Your task to perform on an android device: Open calendar and show me the fourth week of next month Image 0: 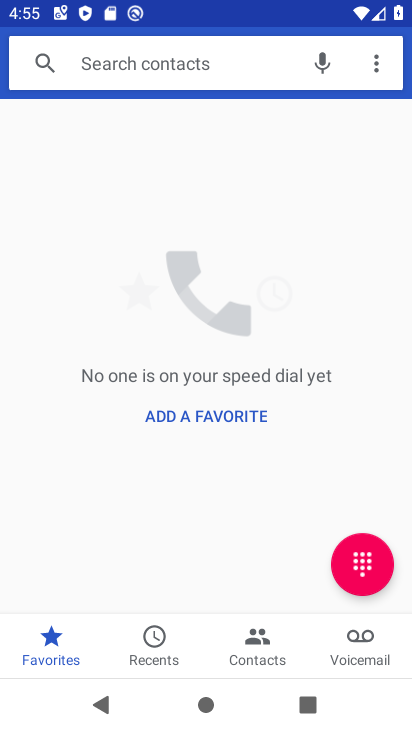
Step 0: press home button
Your task to perform on an android device: Open calendar and show me the fourth week of next month Image 1: 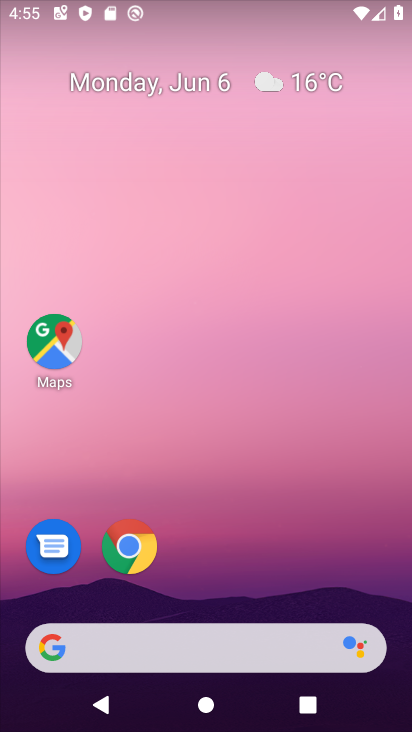
Step 1: drag from (142, 603) to (161, 221)
Your task to perform on an android device: Open calendar and show me the fourth week of next month Image 2: 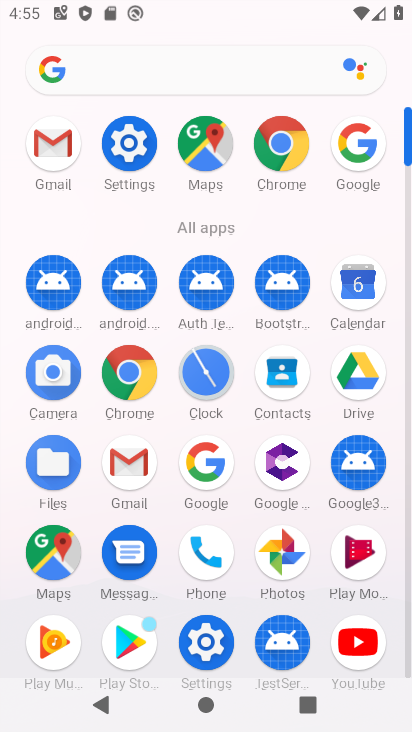
Step 2: click (354, 293)
Your task to perform on an android device: Open calendar and show me the fourth week of next month Image 3: 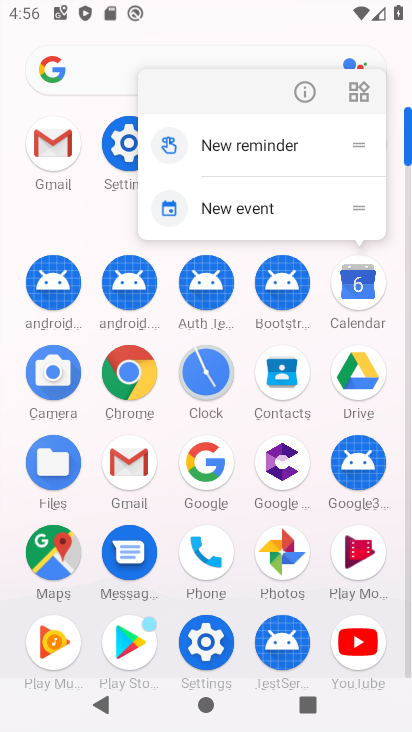
Step 3: click (349, 296)
Your task to perform on an android device: Open calendar and show me the fourth week of next month Image 4: 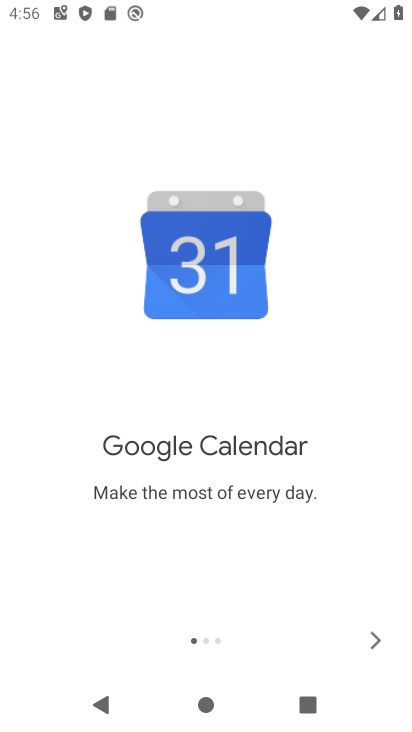
Step 4: click (370, 651)
Your task to perform on an android device: Open calendar and show me the fourth week of next month Image 5: 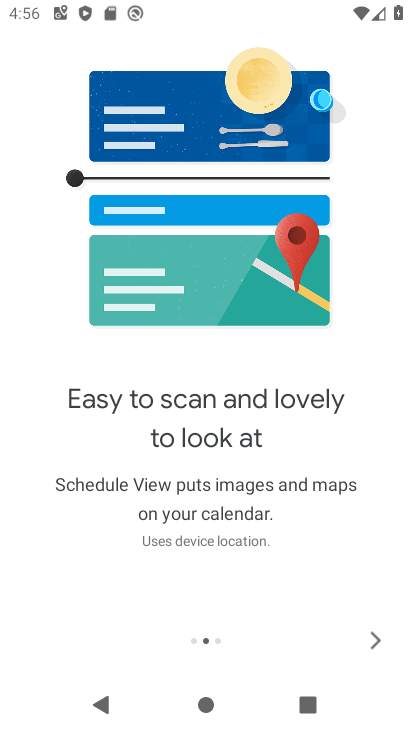
Step 5: click (370, 651)
Your task to perform on an android device: Open calendar and show me the fourth week of next month Image 6: 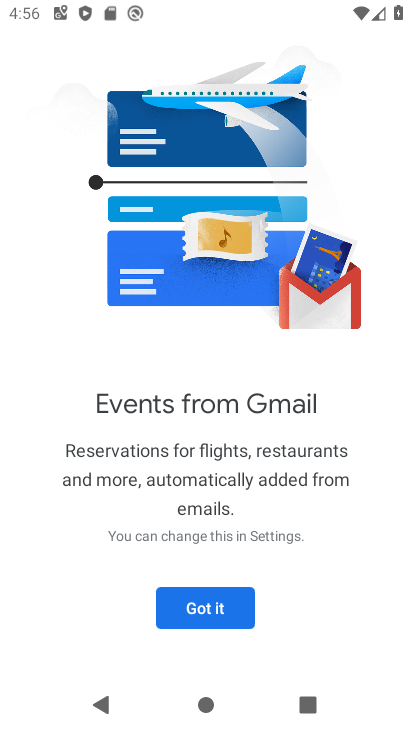
Step 6: click (205, 597)
Your task to perform on an android device: Open calendar and show me the fourth week of next month Image 7: 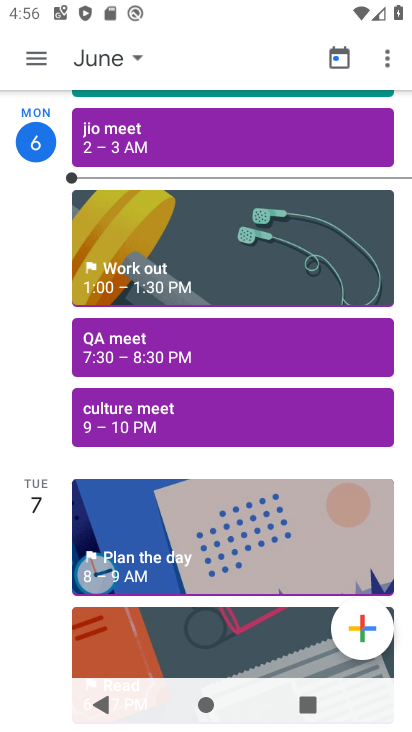
Step 7: click (108, 57)
Your task to perform on an android device: Open calendar and show me the fourth week of next month Image 8: 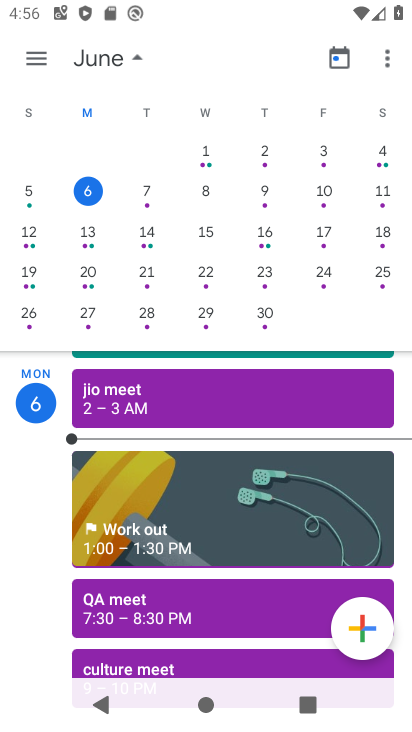
Step 8: drag from (342, 218) to (1, 293)
Your task to perform on an android device: Open calendar and show me the fourth week of next month Image 9: 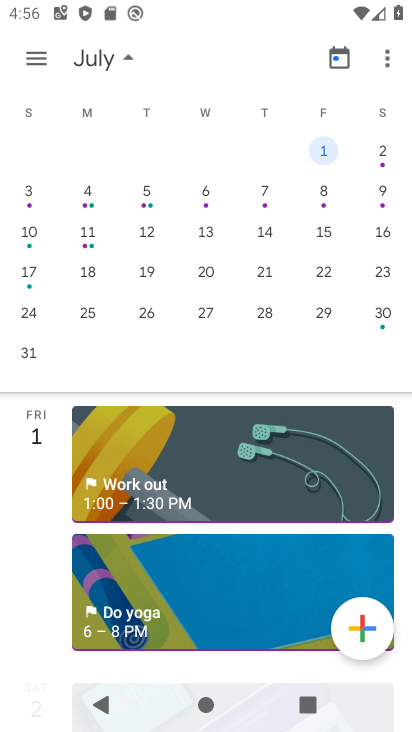
Step 9: click (24, 274)
Your task to perform on an android device: Open calendar and show me the fourth week of next month Image 10: 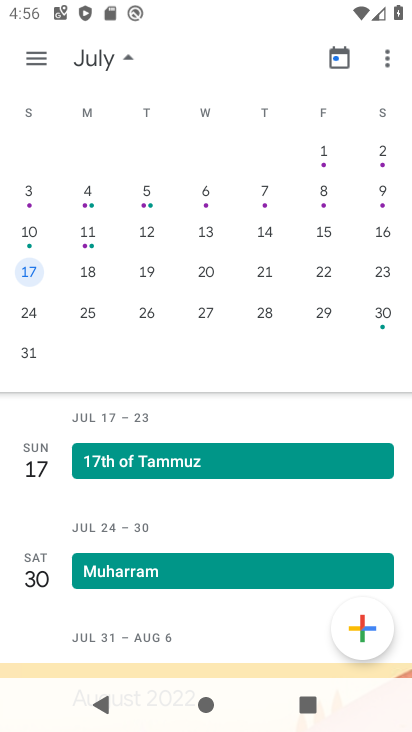
Step 10: task complete